Your task to perform on an android device: see tabs open on other devices in the chrome app Image 0: 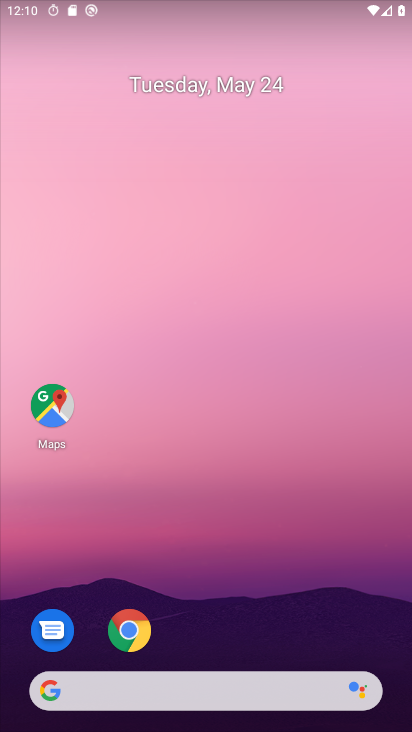
Step 0: click (128, 630)
Your task to perform on an android device: see tabs open on other devices in the chrome app Image 1: 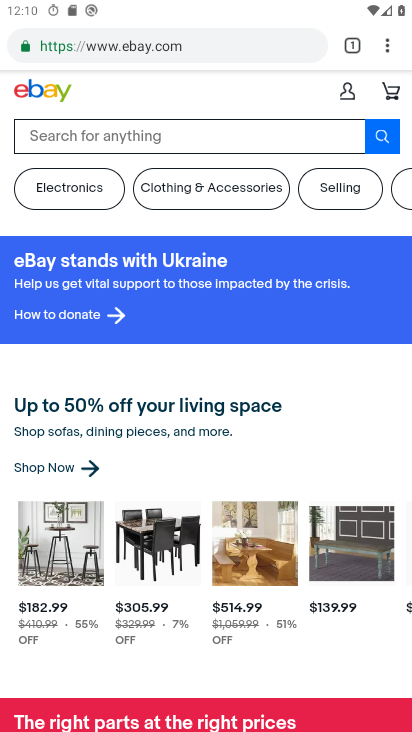
Step 1: click (391, 46)
Your task to perform on an android device: see tabs open on other devices in the chrome app Image 2: 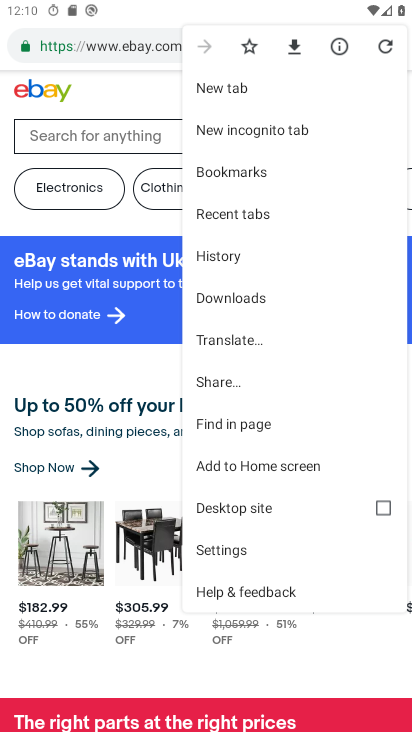
Step 2: click (249, 208)
Your task to perform on an android device: see tabs open on other devices in the chrome app Image 3: 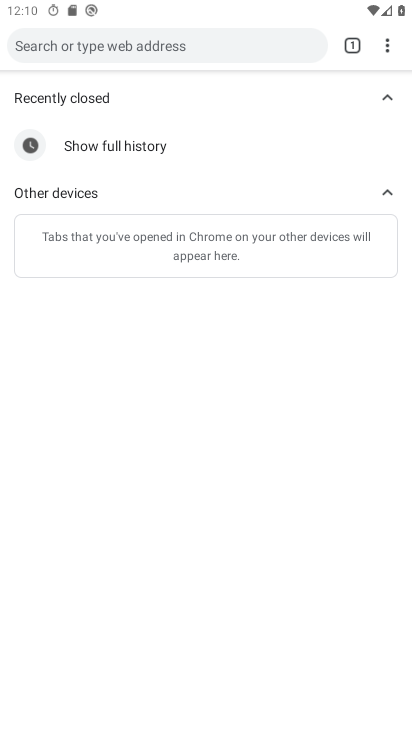
Step 3: task complete